Your task to perform on an android device: install app "Expedia: Hotels, Flights & Car" Image 0: 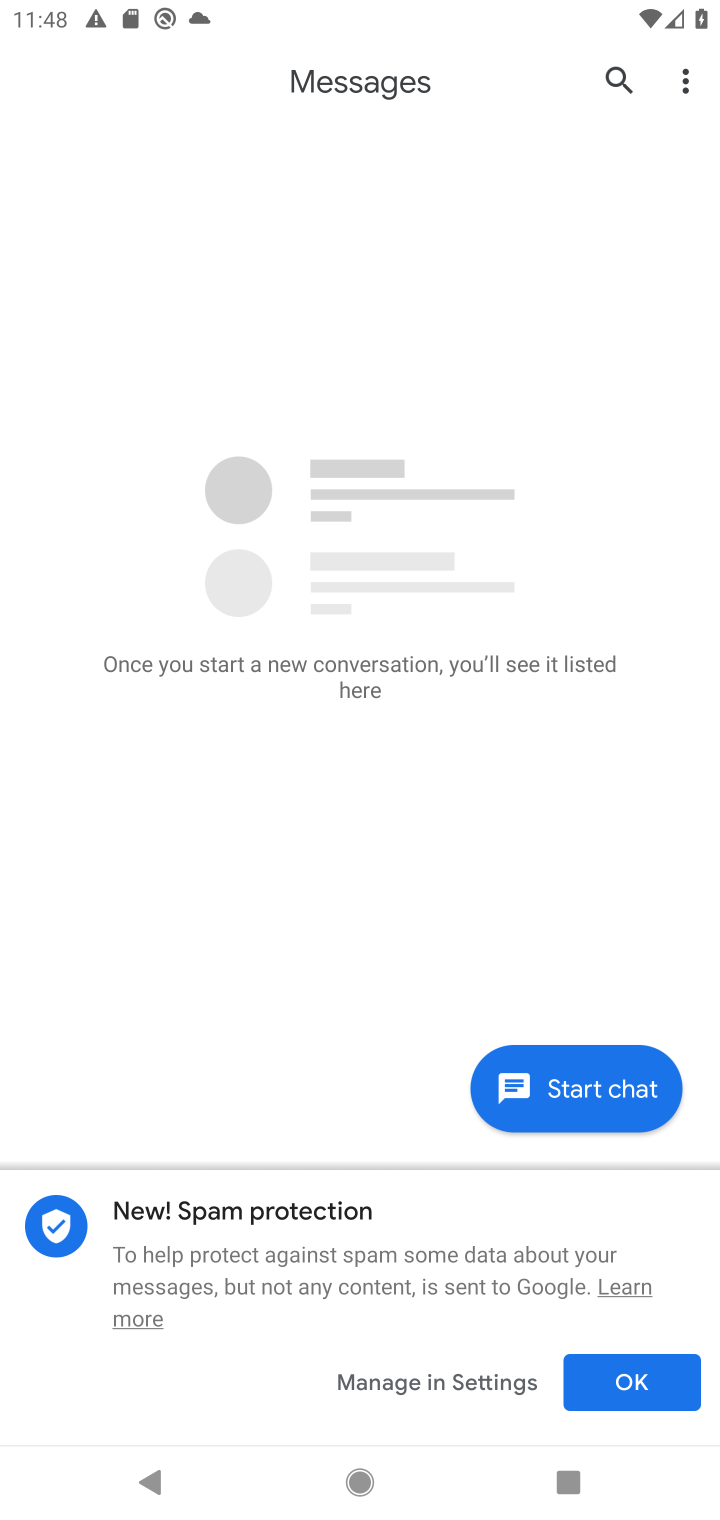
Step 0: press home button
Your task to perform on an android device: install app "Expedia: Hotels, Flights & Car" Image 1: 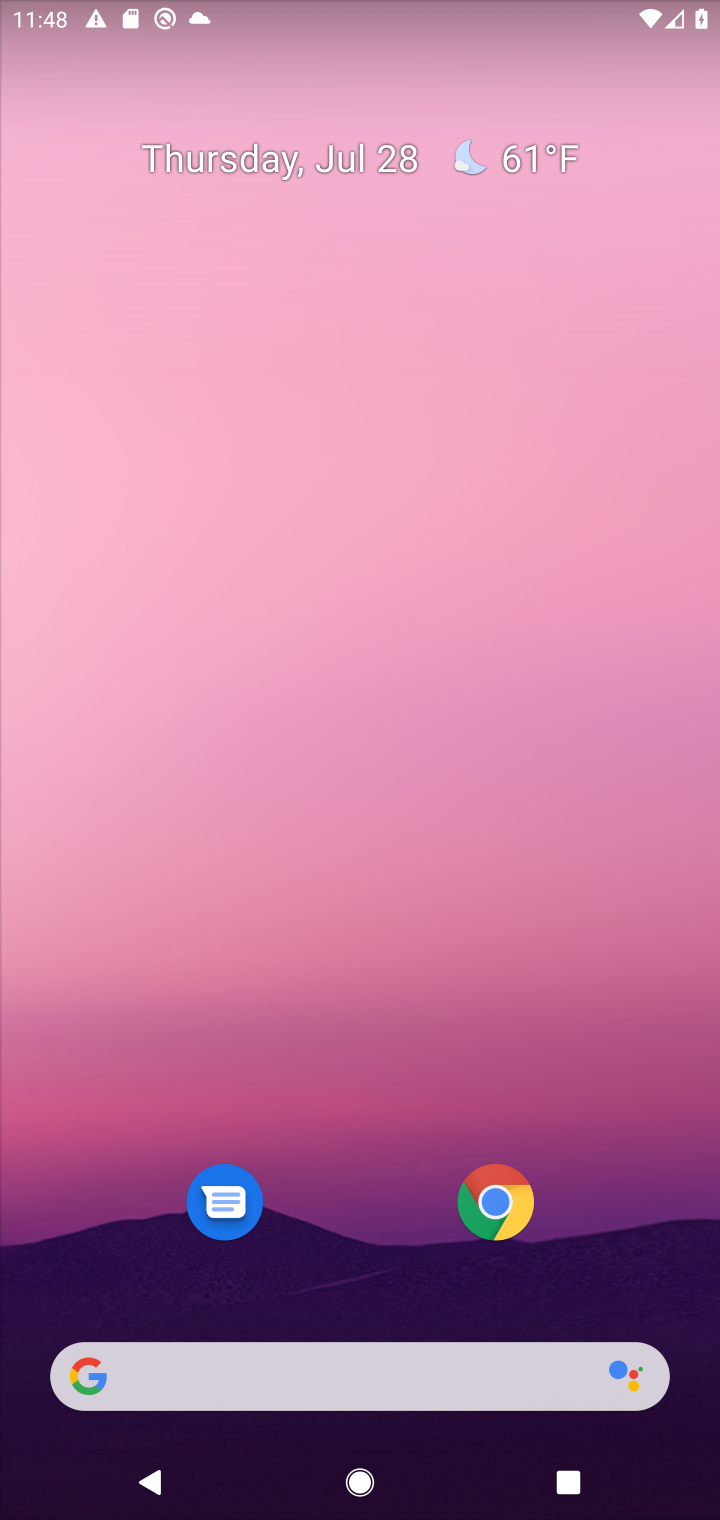
Step 1: click (399, 1341)
Your task to perform on an android device: install app "Expedia: Hotels, Flights & Car" Image 2: 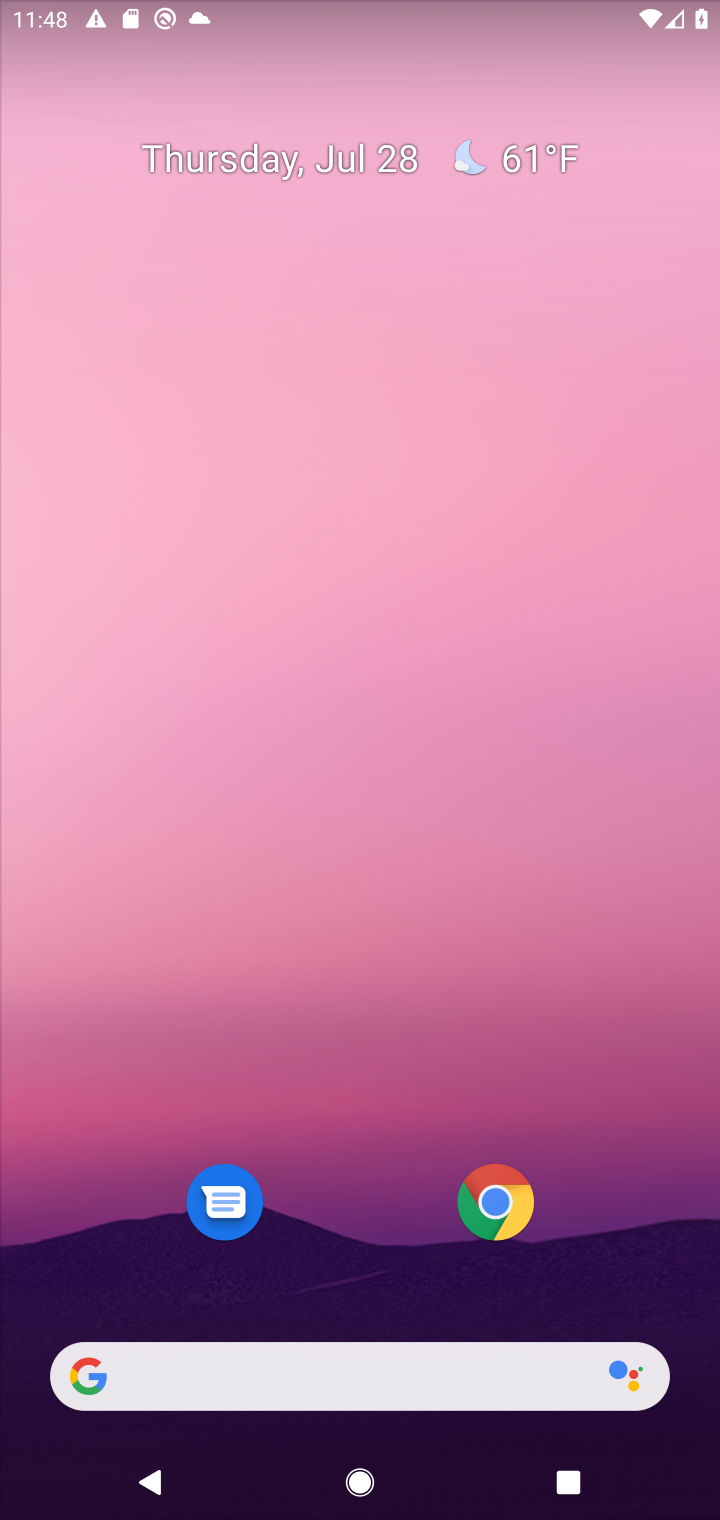
Step 2: click (385, 1385)
Your task to perform on an android device: install app "Expedia: Hotels, Flights & Car" Image 3: 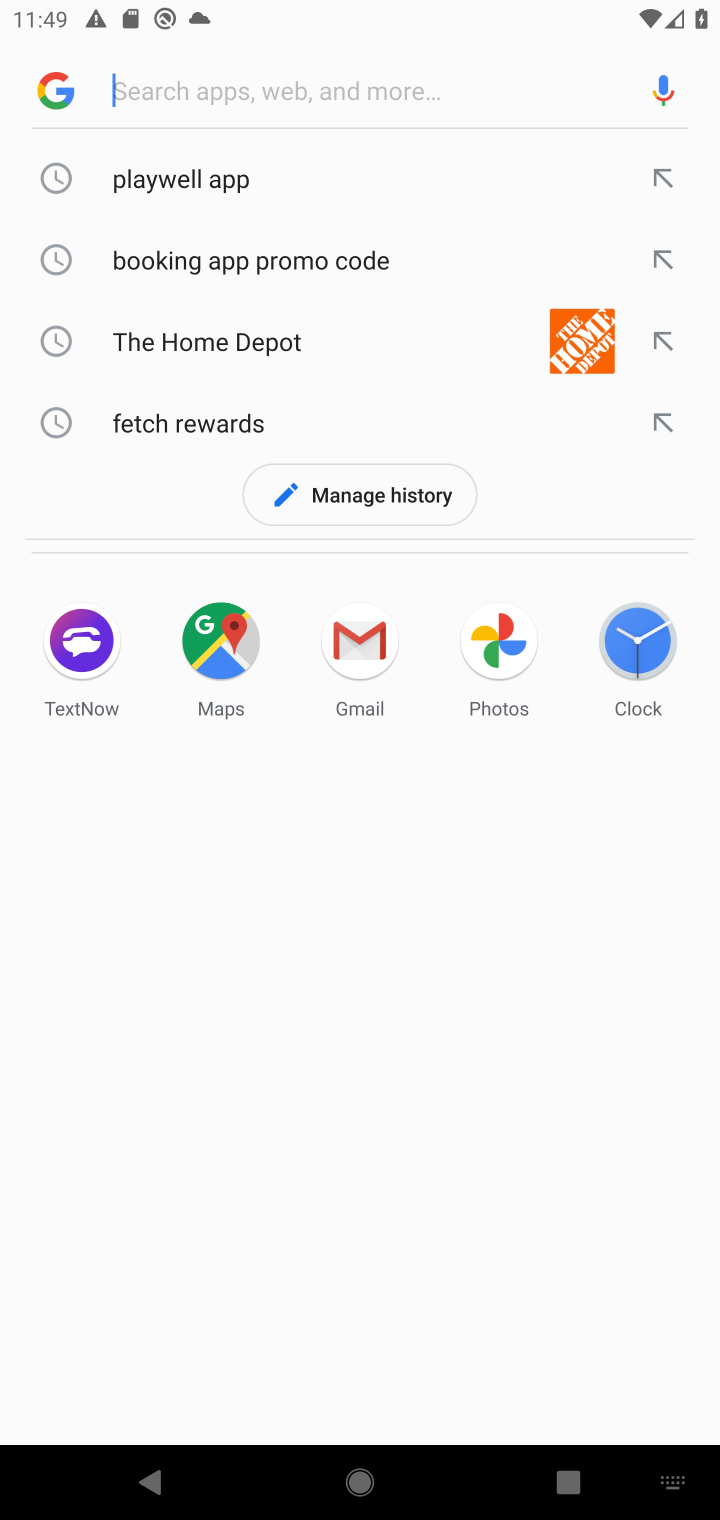
Step 3: type "expedia"
Your task to perform on an android device: install app "Expedia: Hotels, Flights & Car" Image 4: 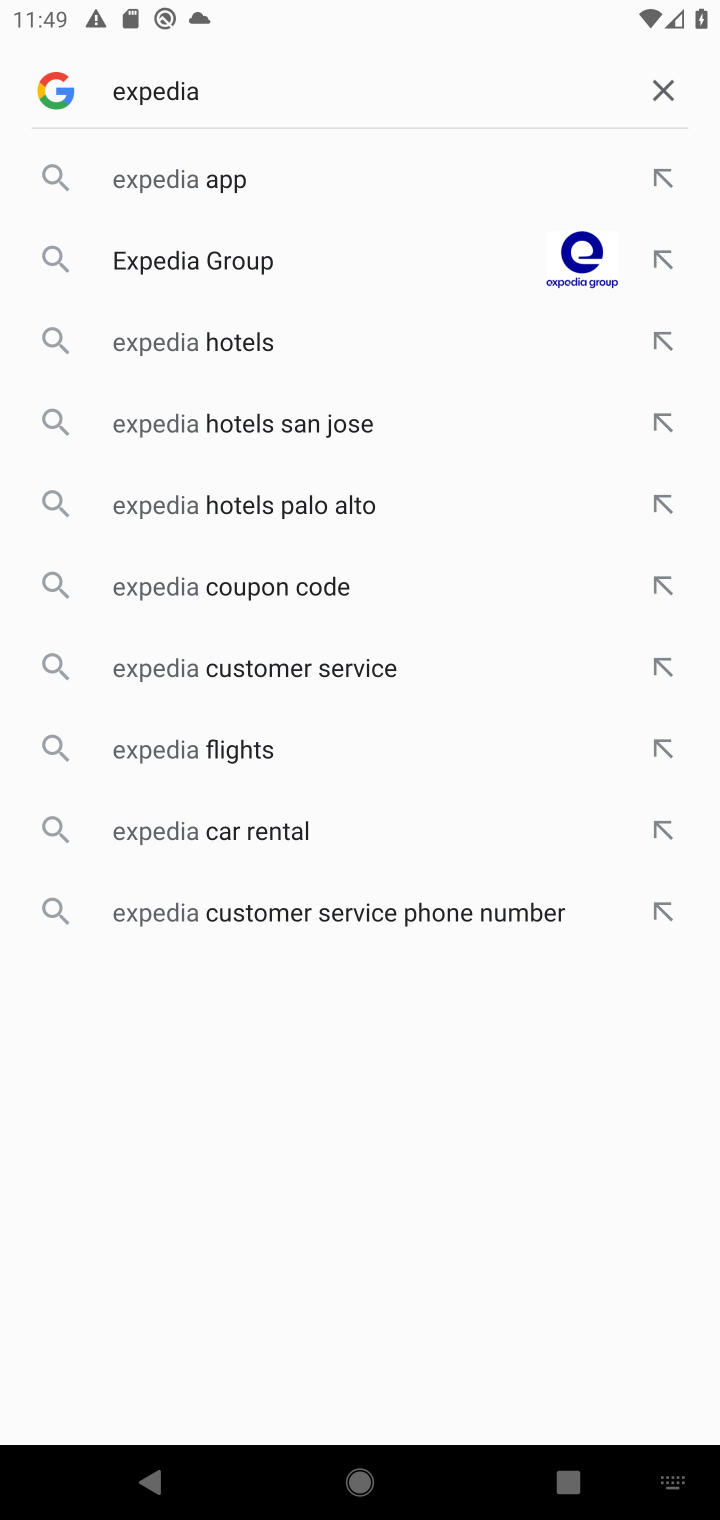
Step 4: click (298, 214)
Your task to perform on an android device: install app "Expedia: Hotels, Flights & Car" Image 5: 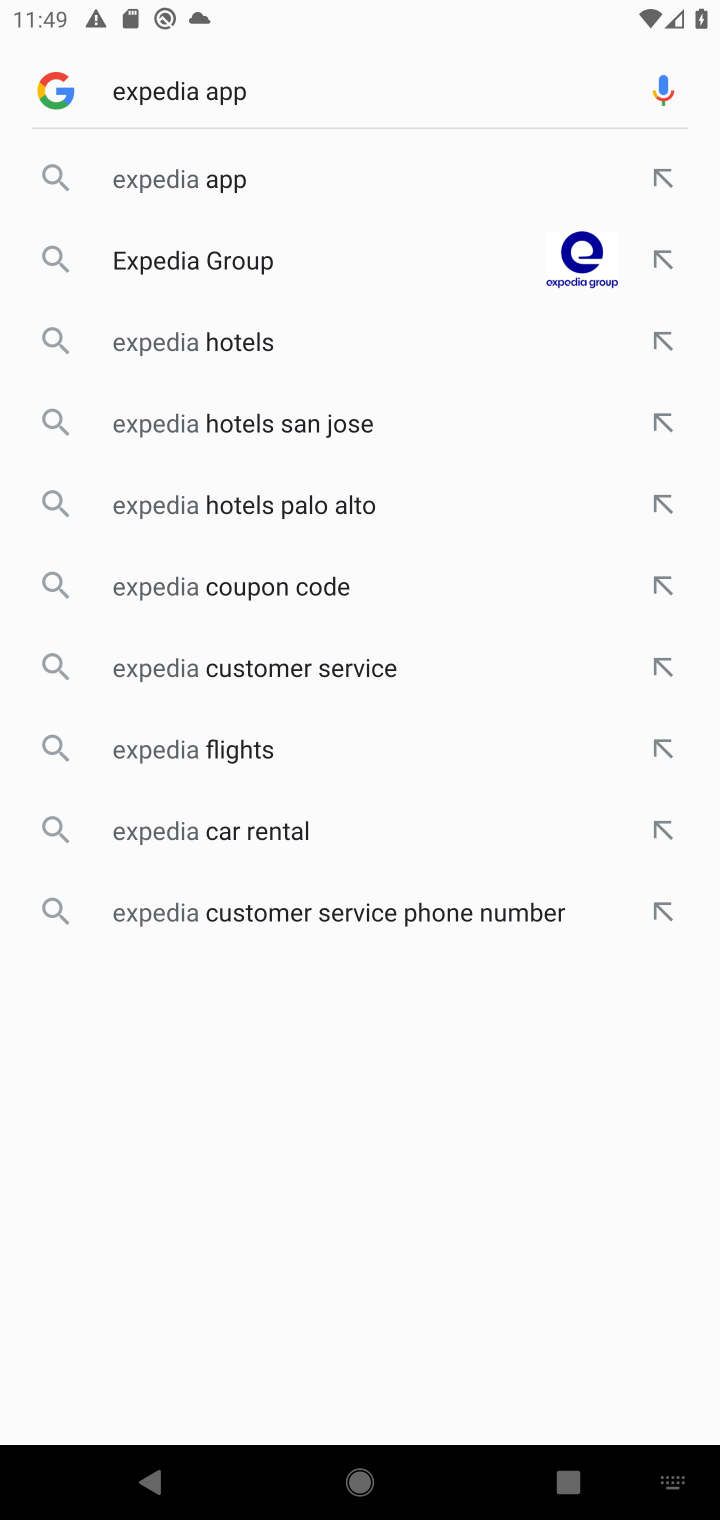
Step 5: click (258, 186)
Your task to perform on an android device: install app "Expedia: Hotels, Flights & Car" Image 6: 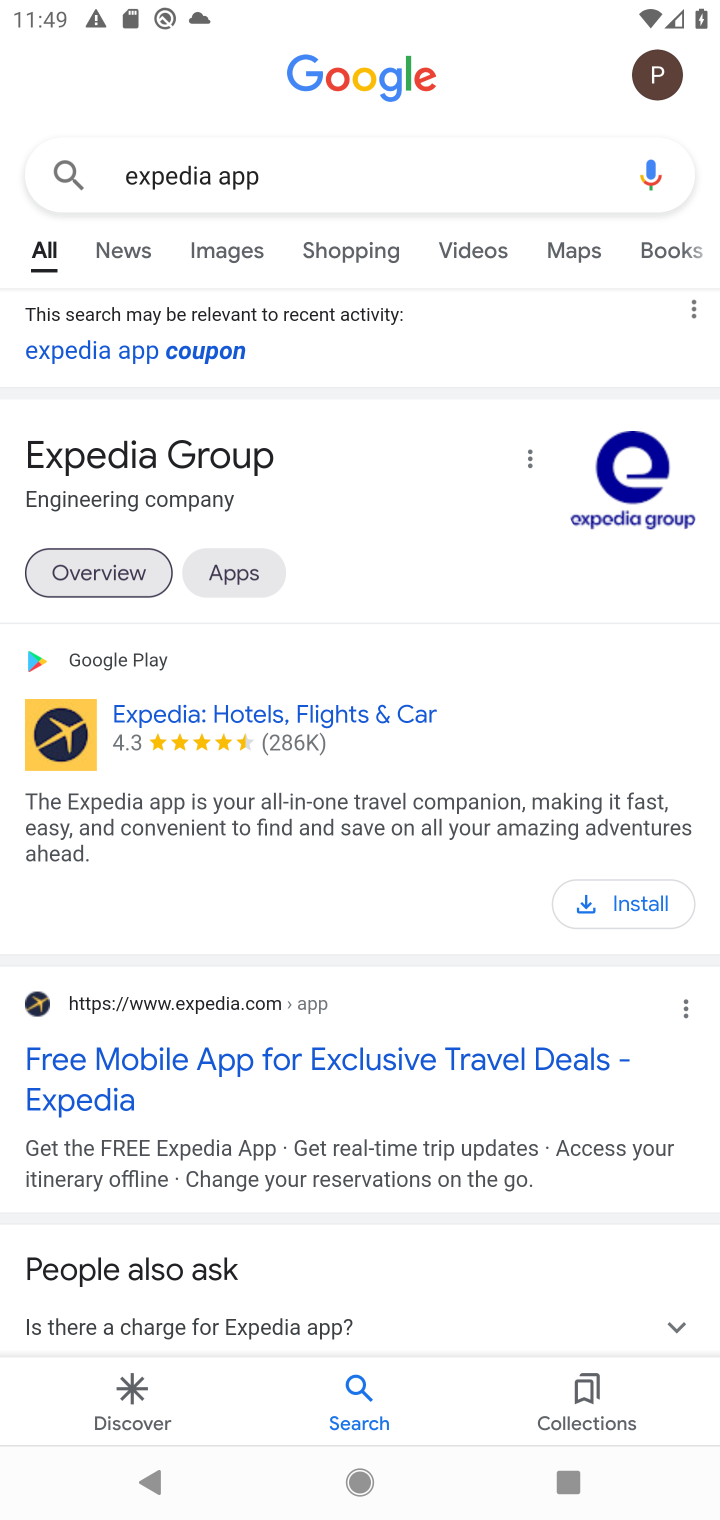
Step 6: click (636, 894)
Your task to perform on an android device: install app "Expedia: Hotels, Flights & Car" Image 7: 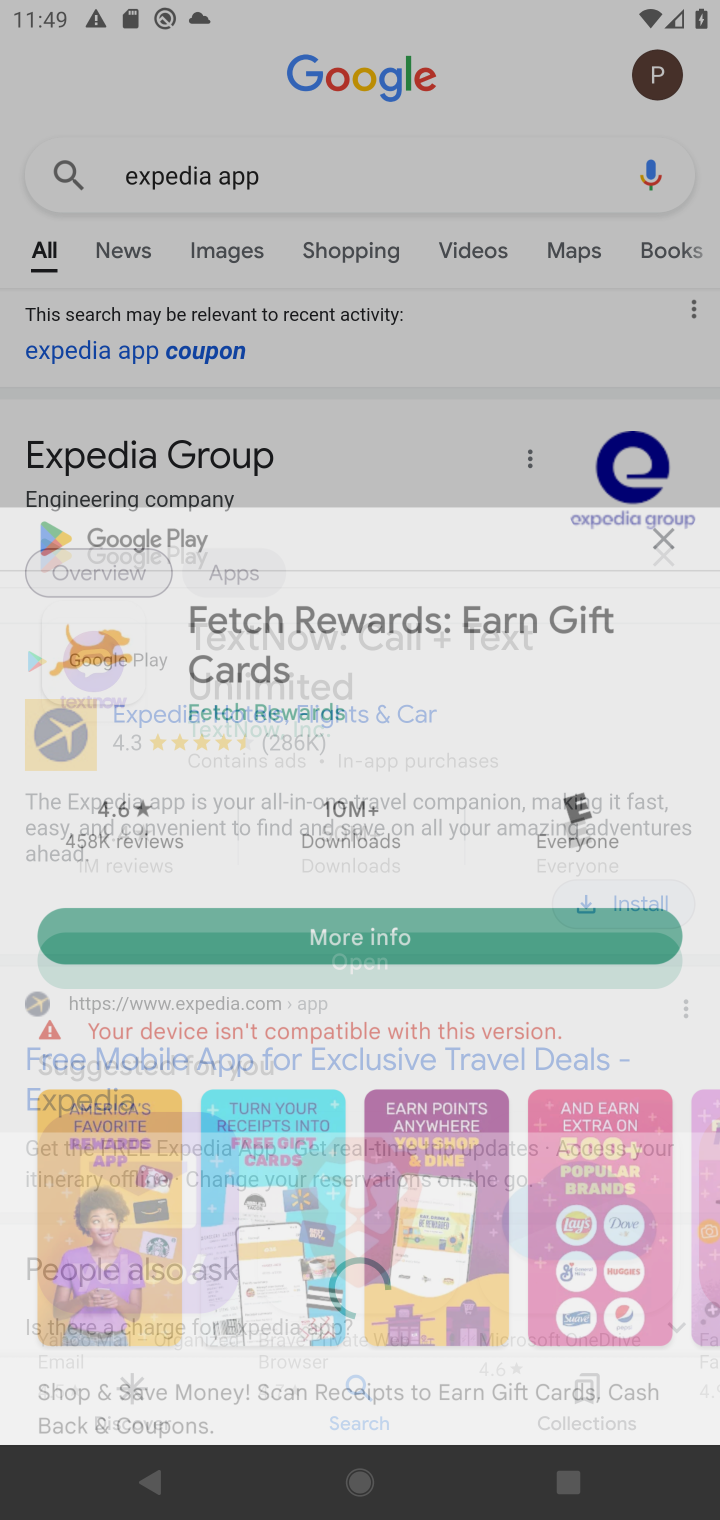
Step 7: task complete